Your task to perform on an android device: Search for sushi restaurants on Maps Image 0: 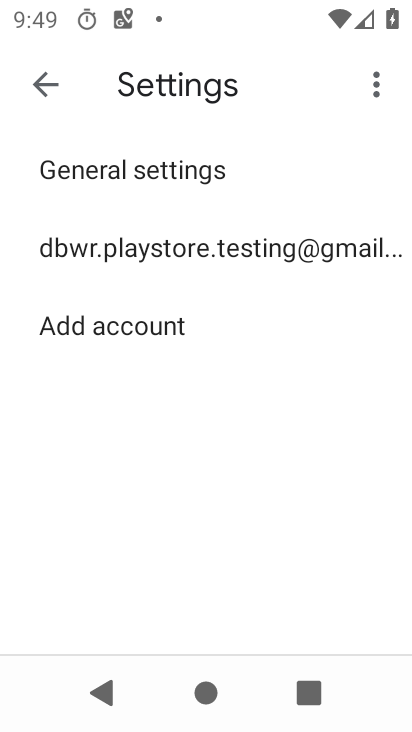
Step 0: press home button
Your task to perform on an android device: Search for sushi restaurants on Maps Image 1: 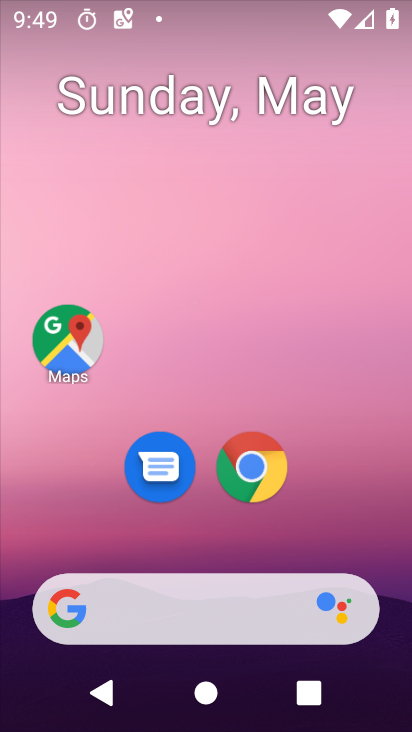
Step 1: click (86, 359)
Your task to perform on an android device: Search for sushi restaurants on Maps Image 2: 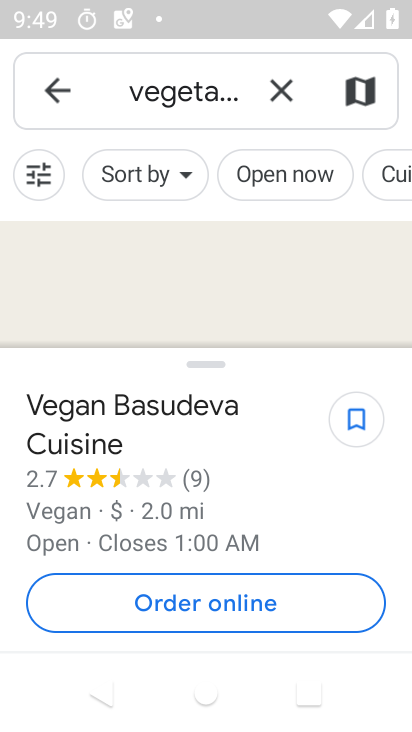
Step 2: click (286, 88)
Your task to perform on an android device: Search for sushi restaurants on Maps Image 3: 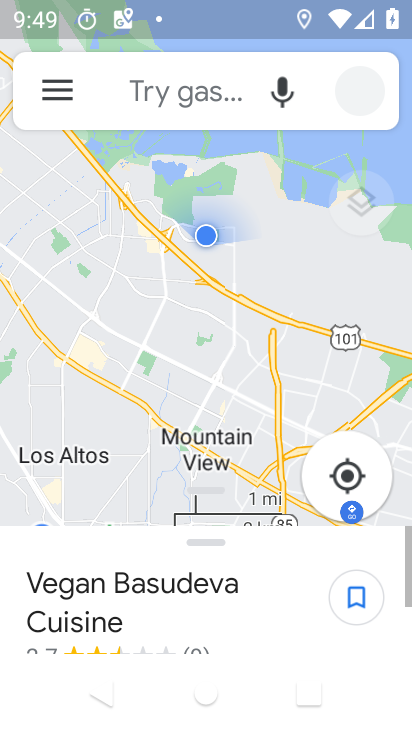
Step 3: click (209, 95)
Your task to perform on an android device: Search for sushi restaurants on Maps Image 4: 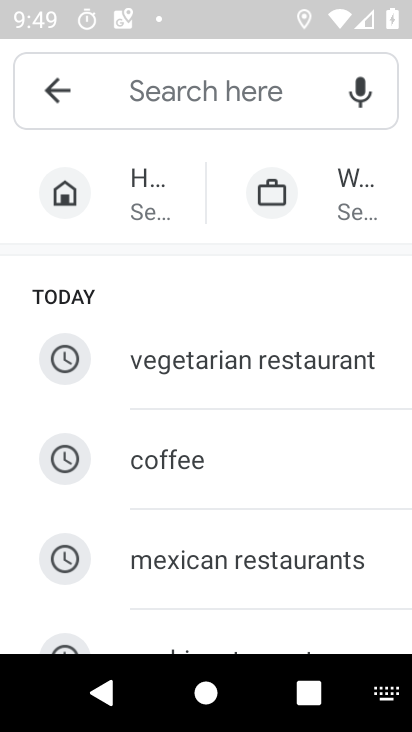
Step 4: type "sushi restaurants"
Your task to perform on an android device: Search for sushi restaurants on Maps Image 5: 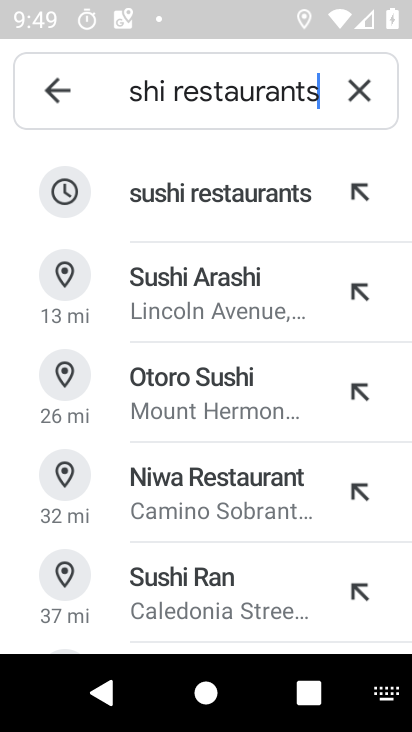
Step 5: click (230, 198)
Your task to perform on an android device: Search for sushi restaurants on Maps Image 6: 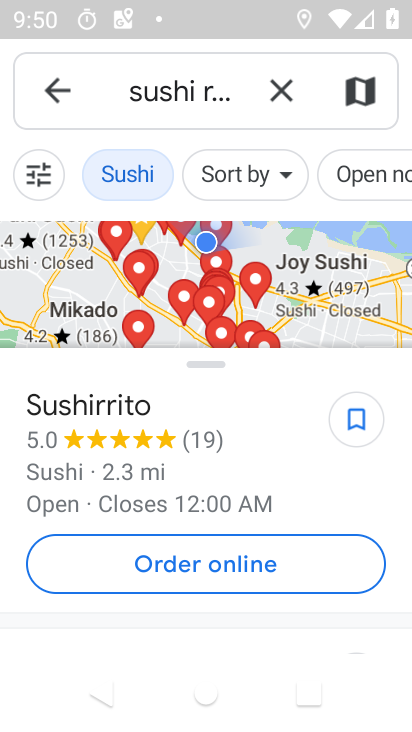
Step 6: task complete